Your task to perform on an android device: Open my contact list Image 0: 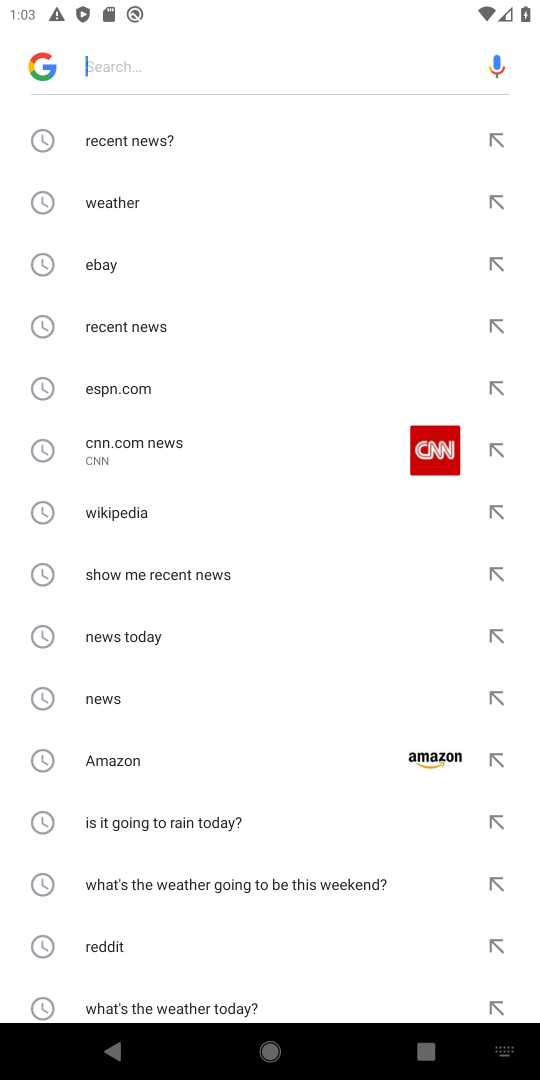
Step 0: press home button
Your task to perform on an android device: Open my contact list Image 1: 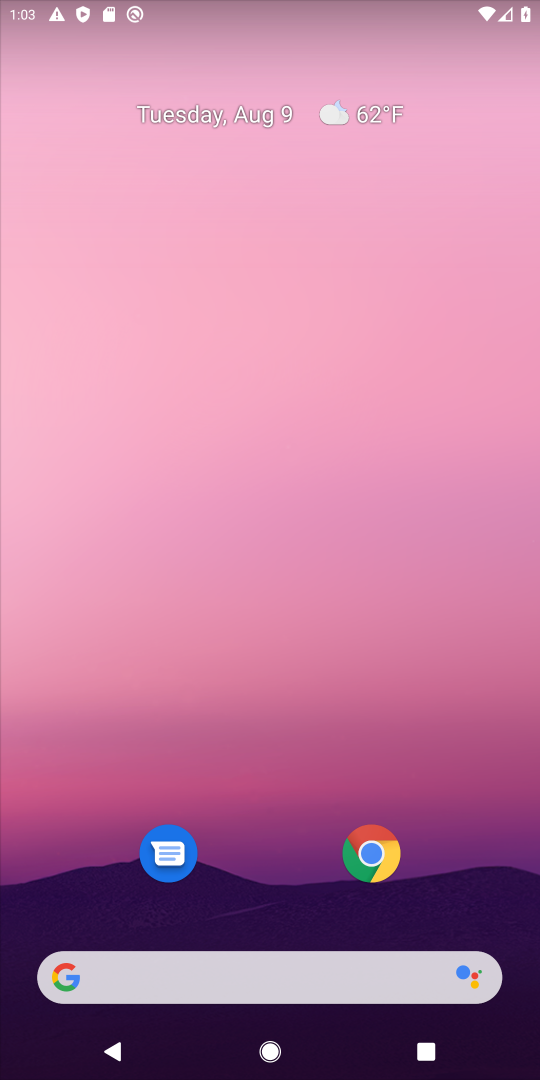
Step 1: drag from (256, 517) to (270, 137)
Your task to perform on an android device: Open my contact list Image 2: 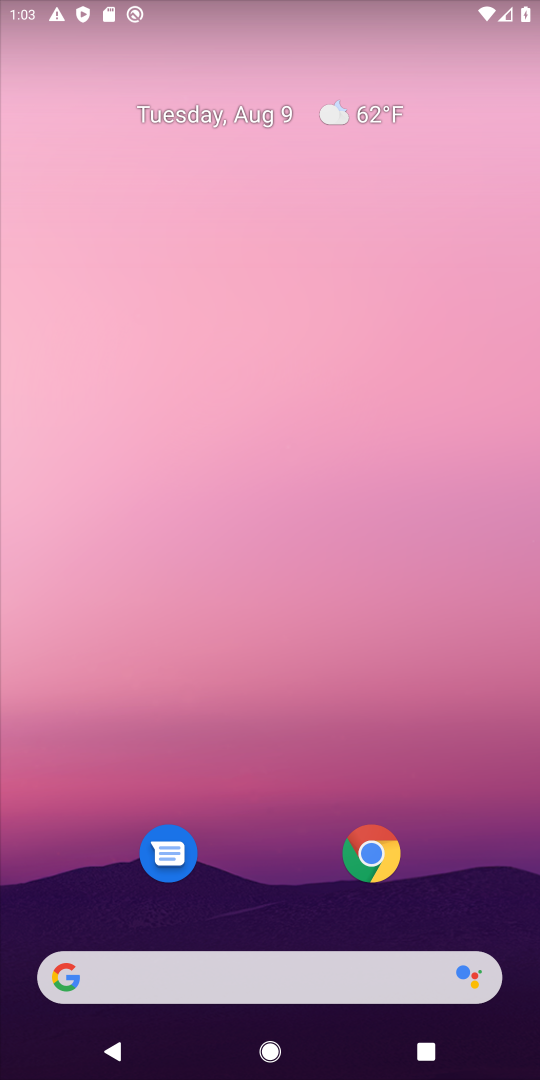
Step 2: drag from (272, 855) to (519, 619)
Your task to perform on an android device: Open my contact list Image 3: 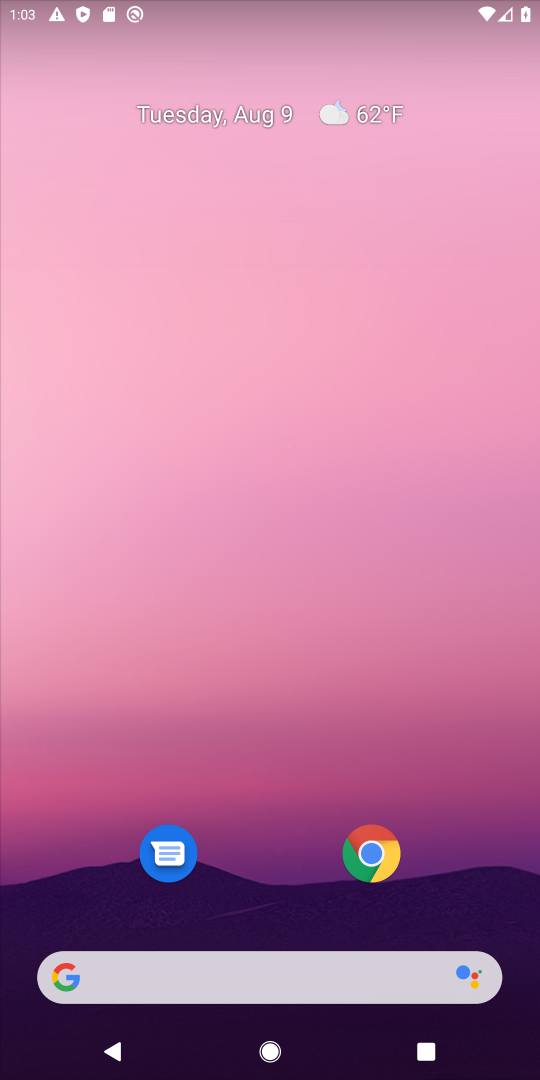
Step 3: drag from (275, 872) to (447, 824)
Your task to perform on an android device: Open my contact list Image 4: 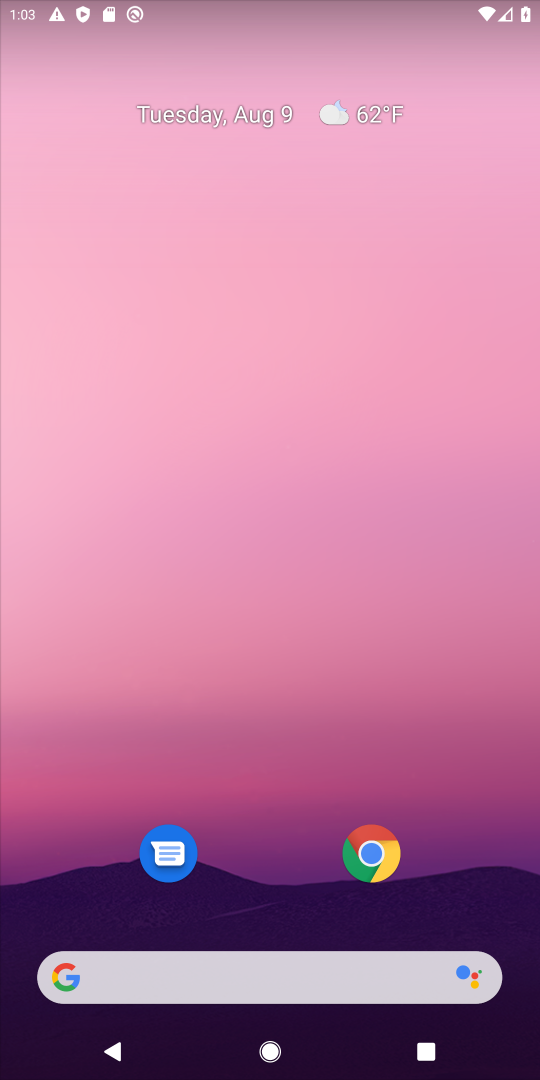
Step 4: drag from (265, 897) to (521, 429)
Your task to perform on an android device: Open my contact list Image 5: 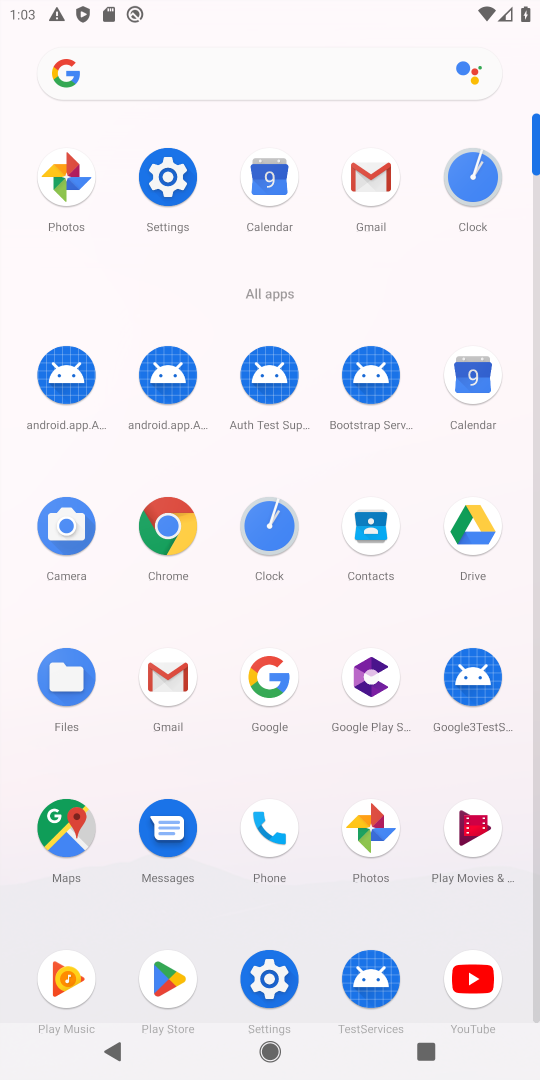
Step 5: click (367, 532)
Your task to perform on an android device: Open my contact list Image 6: 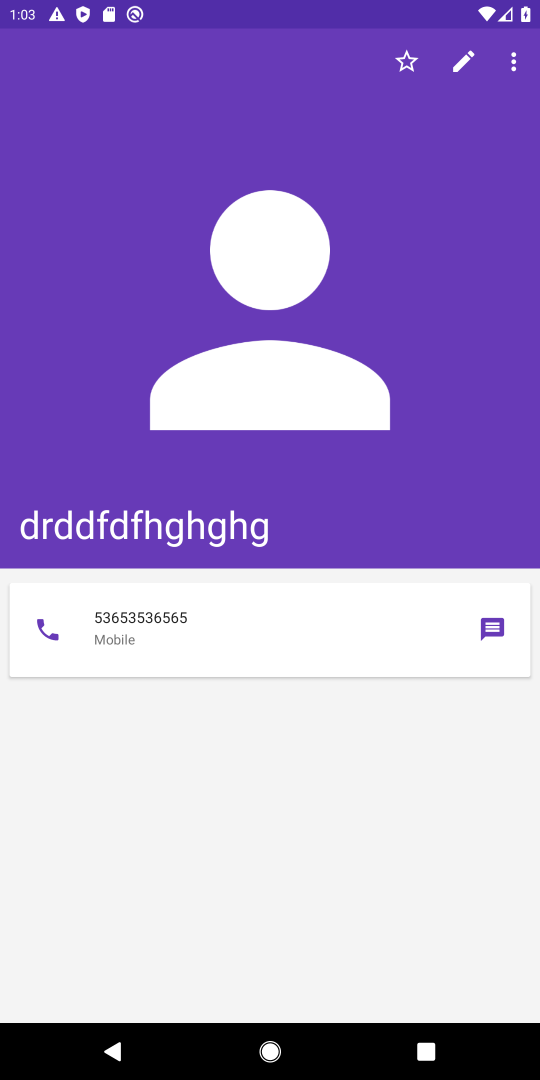
Step 6: task complete